Your task to perform on an android device: check battery use Image 0: 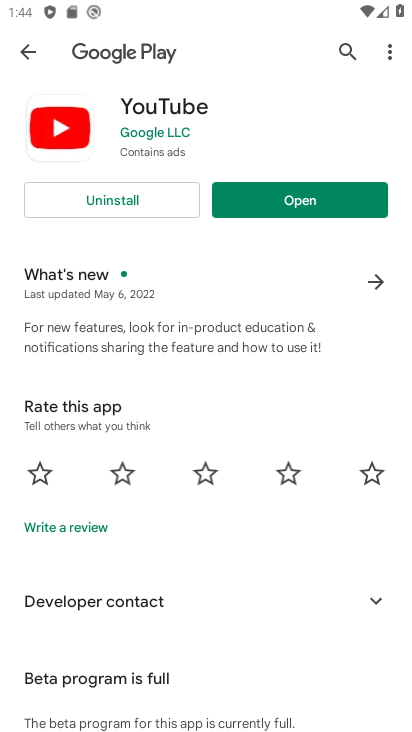
Step 0: press home button
Your task to perform on an android device: check battery use Image 1: 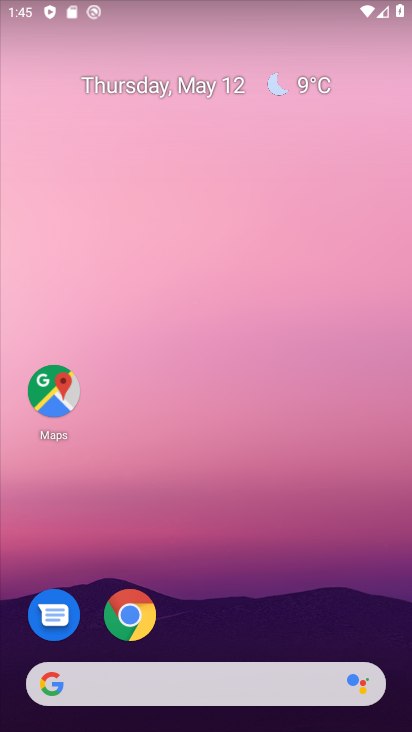
Step 1: drag from (180, 682) to (185, 147)
Your task to perform on an android device: check battery use Image 2: 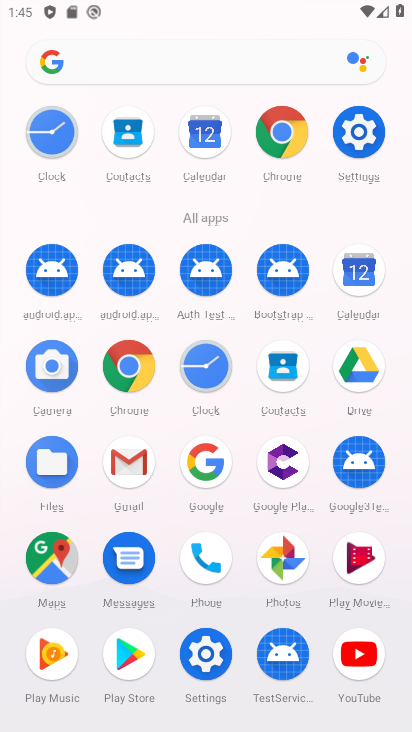
Step 2: click (202, 647)
Your task to perform on an android device: check battery use Image 3: 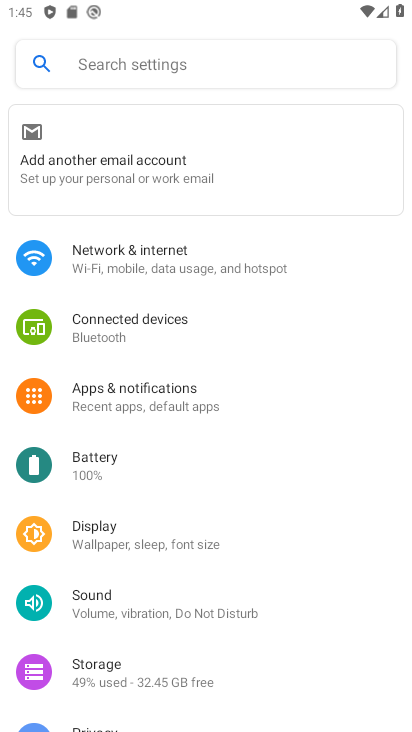
Step 3: click (105, 462)
Your task to perform on an android device: check battery use Image 4: 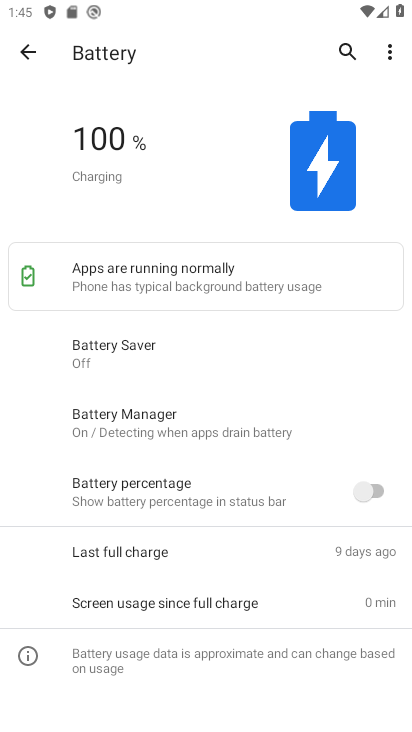
Step 4: task complete